Your task to perform on an android device: toggle priority inbox in the gmail app Image 0: 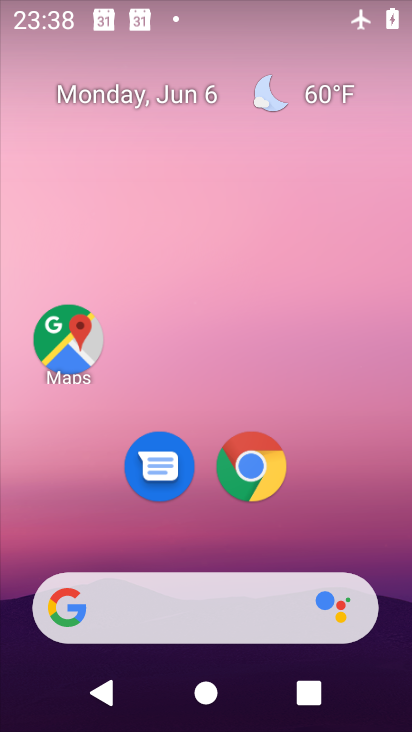
Step 0: drag from (326, 527) to (348, 51)
Your task to perform on an android device: toggle priority inbox in the gmail app Image 1: 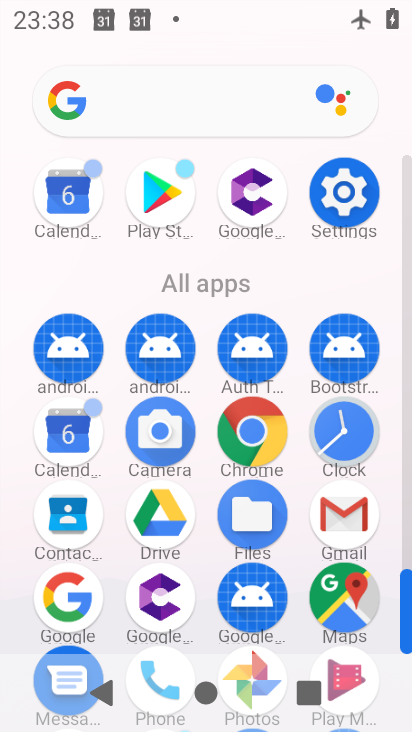
Step 1: click (339, 514)
Your task to perform on an android device: toggle priority inbox in the gmail app Image 2: 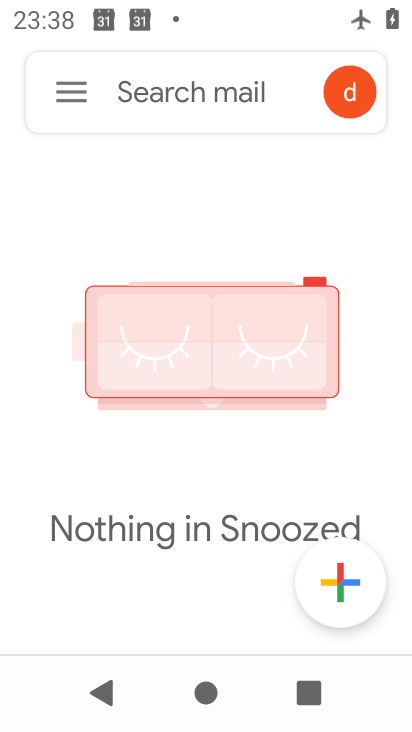
Step 2: click (73, 92)
Your task to perform on an android device: toggle priority inbox in the gmail app Image 3: 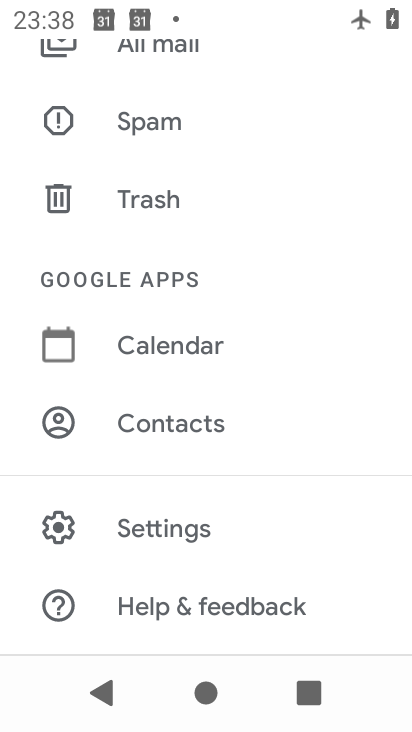
Step 3: click (183, 541)
Your task to perform on an android device: toggle priority inbox in the gmail app Image 4: 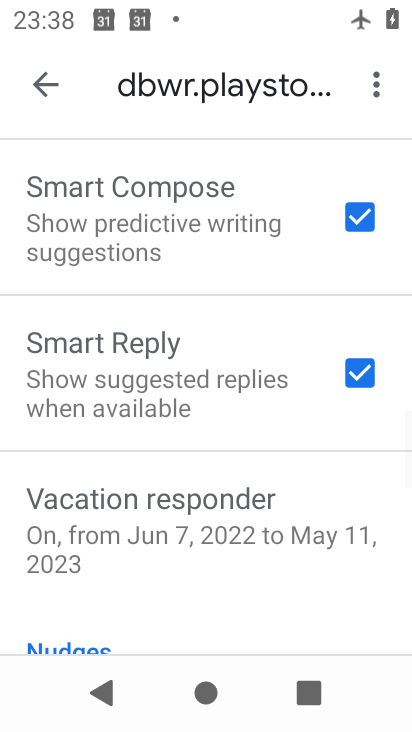
Step 4: drag from (145, 261) to (149, 524)
Your task to perform on an android device: toggle priority inbox in the gmail app Image 5: 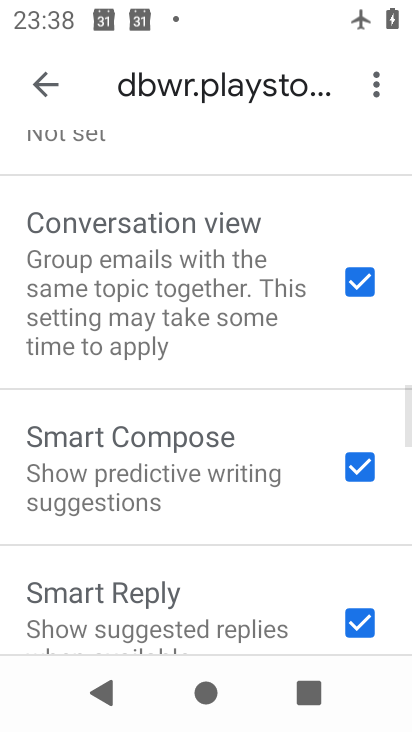
Step 5: drag from (157, 259) to (164, 517)
Your task to perform on an android device: toggle priority inbox in the gmail app Image 6: 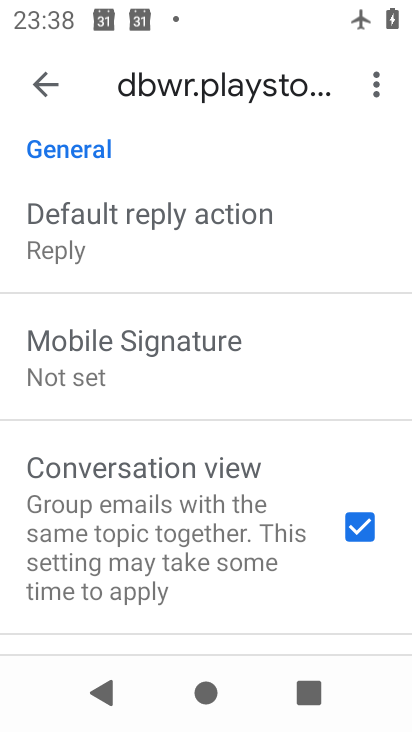
Step 6: drag from (167, 252) to (179, 463)
Your task to perform on an android device: toggle priority inbox in the gmail app Image 7: 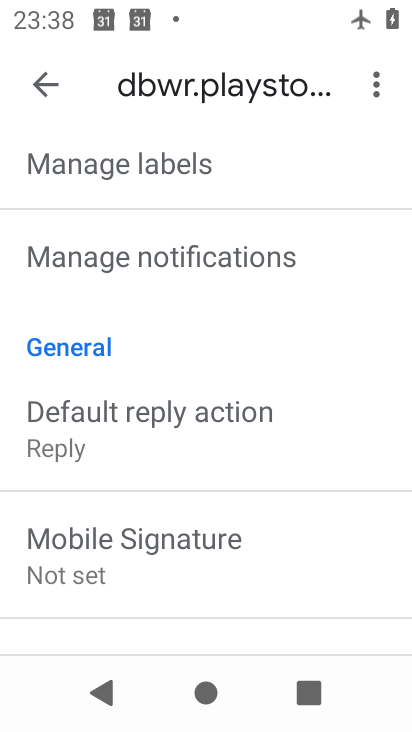
Step 7: drag from (161, 206) to (212, 495)
Your task to perform on an android device: toggle priority inbox in the gmail app Image 8: 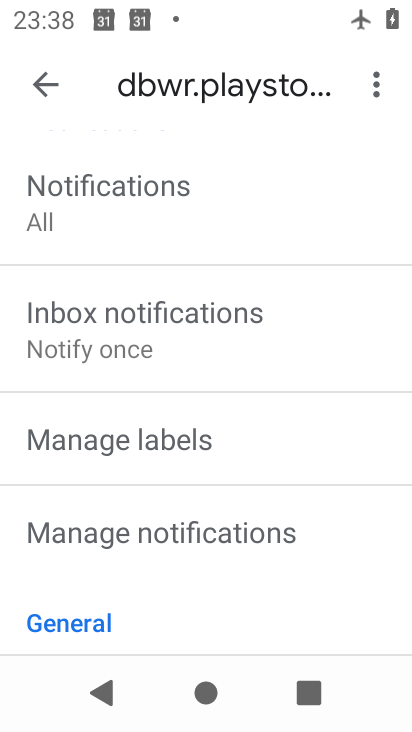
Step 8: drag from (169, 218) to (169, 474)
Your task to perform on an android device: toggle priority inbox in the gmail app Image 9: 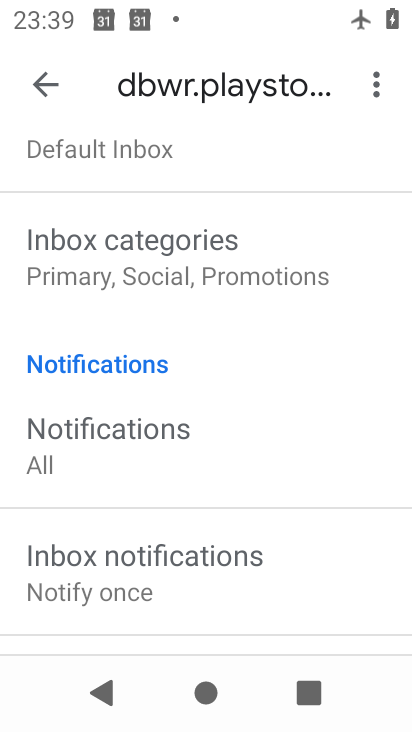
Step 9: drag from (165, 321) to (183, 501)
Your task to perform on an android device: toggle priority inbox in the gmail app Image 10: 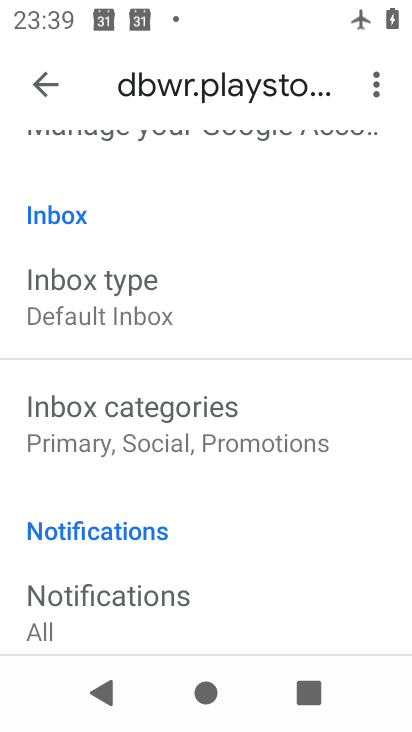
Step 10: click (160, 291)
Your task to perform on an android device: toggle priority inbox in the gmail app Image 11: 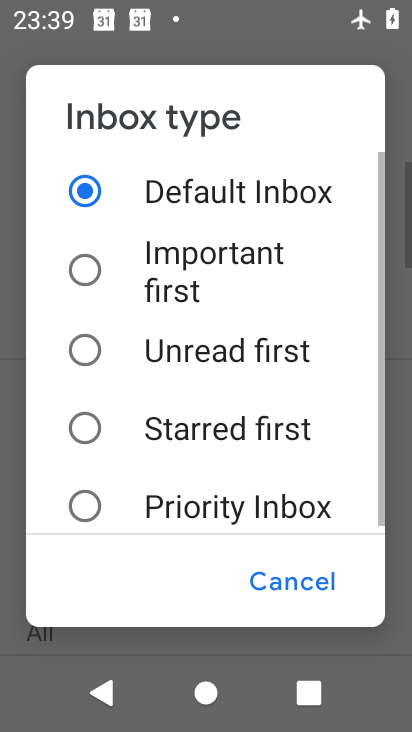
Step 11: click (173, 508)
Your task to perform on an android device: toggle priority inbox in the gmail app Image 12: 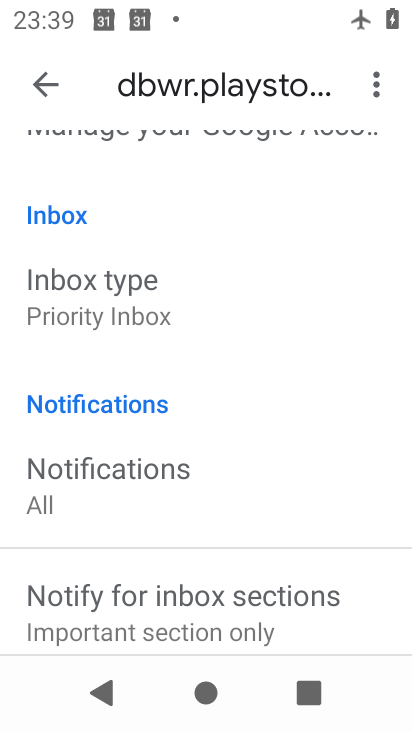
Step 12: task complete